Your task to perform on an android device: Look up the best rated 3d printer on Ali Express Image 0: 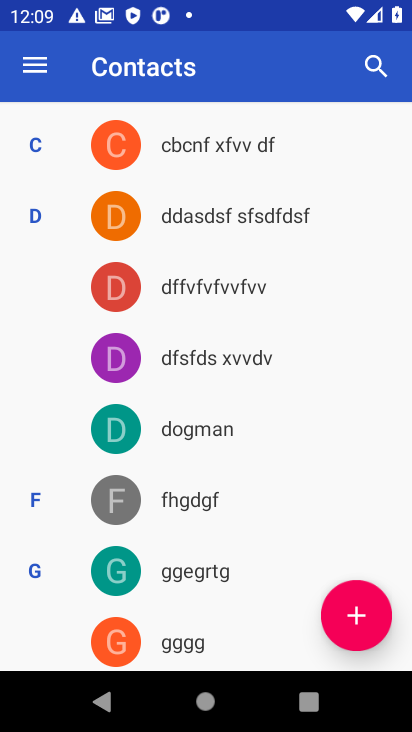
Step 0: press home button
Your task to perform on an android device: Look up the best rated 3d printer on Ali Express Image 1: 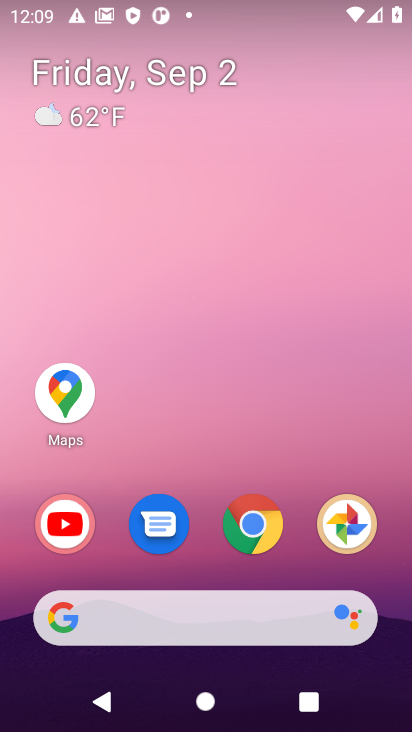
Step 1: click (261, 529)
Your task to perform on an android device: Look up the best rated 3d printer on Ali Express Image 2: 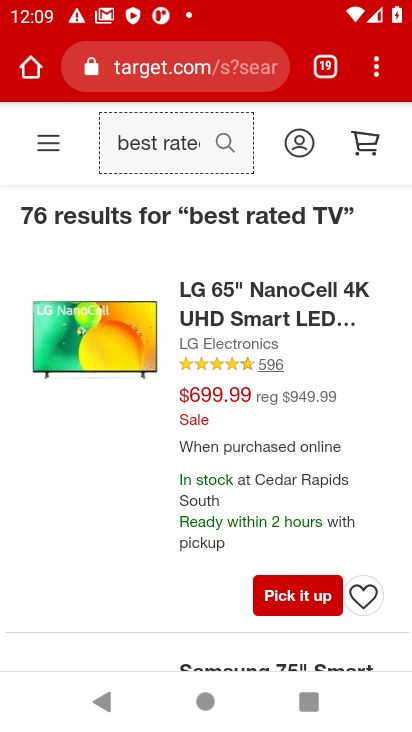
Step 2: click (327, 66)
Your task to perform on an android device: Look up the best rated 3d printer on Ali Express Image 3: 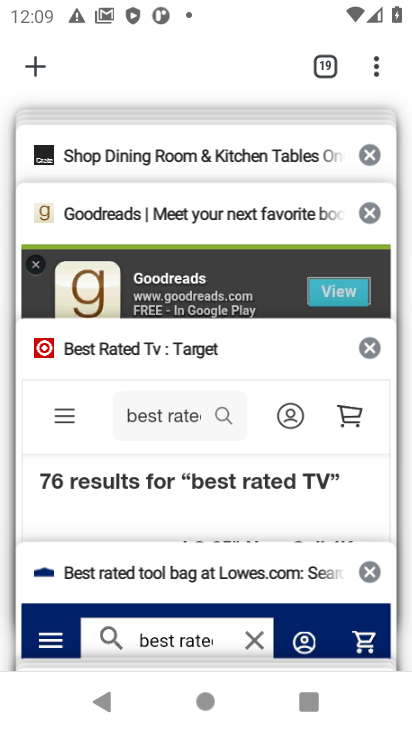
Step 3: drag from (137, 576) to (114, 143)
Your task to perform on an android device: Look up the best rated 3d printer on Ali Express Image 4: 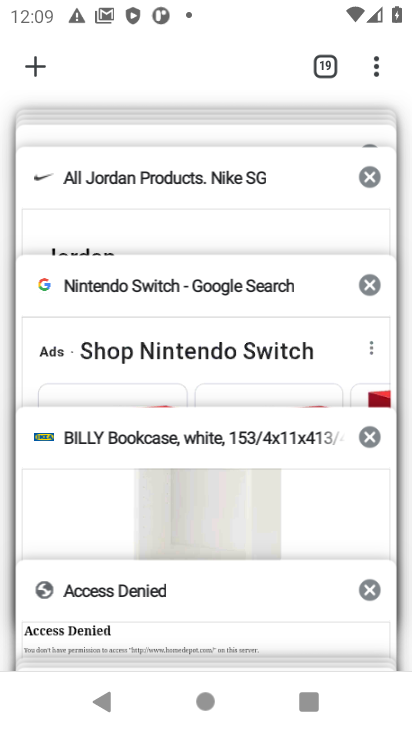
Step 4: drag from (135, 545) to (144, 172)
Your task to perform on an android device: Look up the best rated 3d printer on Ali Express Image 5: 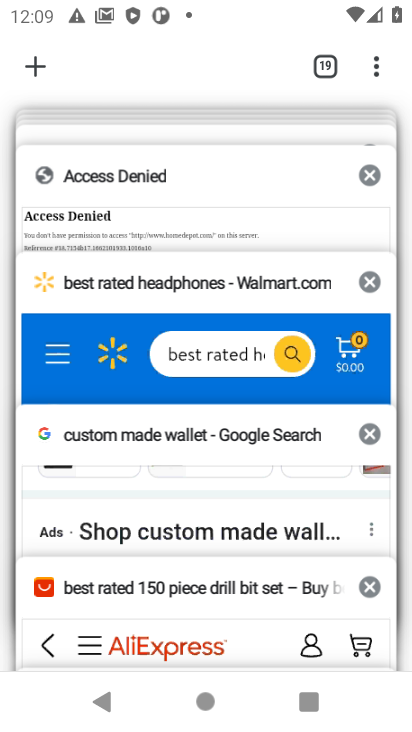
Step 5: drag from (171, 606) to (165, 254)
Your task to perform on an android device: Look up the best rated 3d printer on Ali Express Image 6: 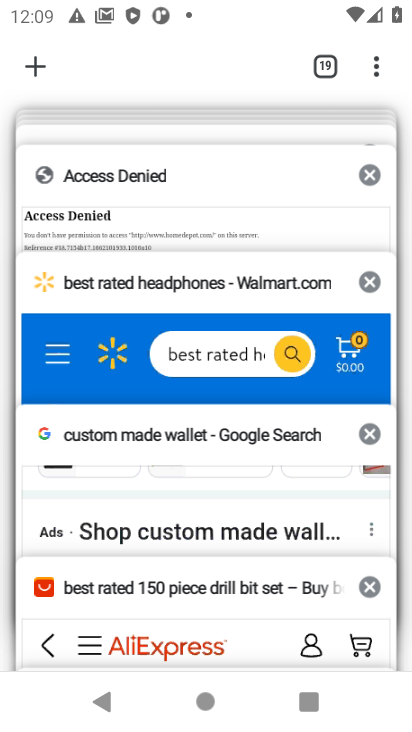
Step 6: drag from (130, 582) to (125, 290)
Your task to perform on an android device: Look up the best rated 3d printer on Ali Express Image 7: 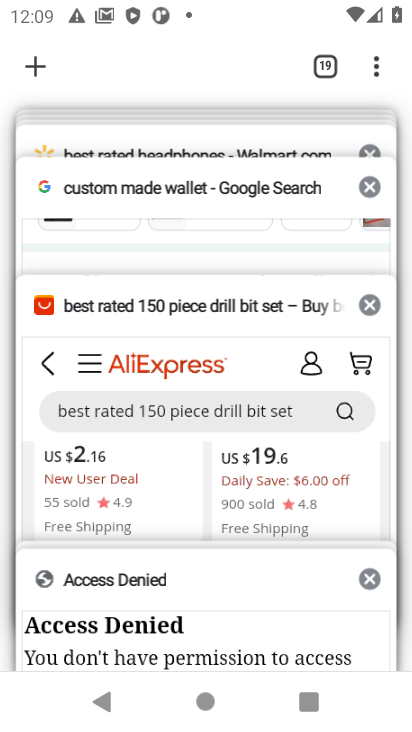
Step 7: click (154, 364)
Your task to perform on an android device: Look up the best rated 3d printer on Ali Express Image 8: 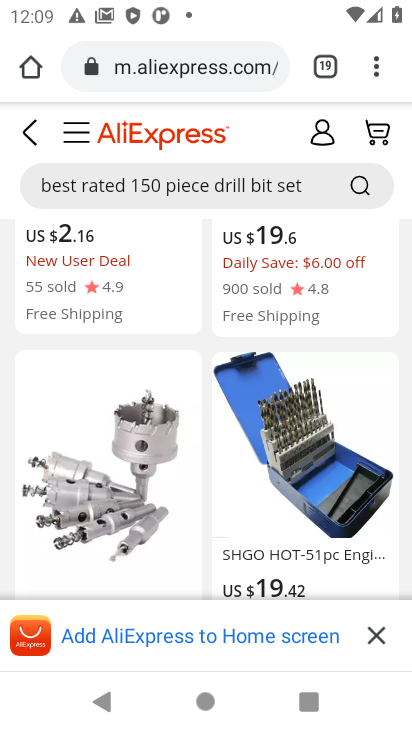
Step 8: click (272, 187)
Your task to perform on an android device: Look up the best rated 3d printer on Ali Express Image 9: 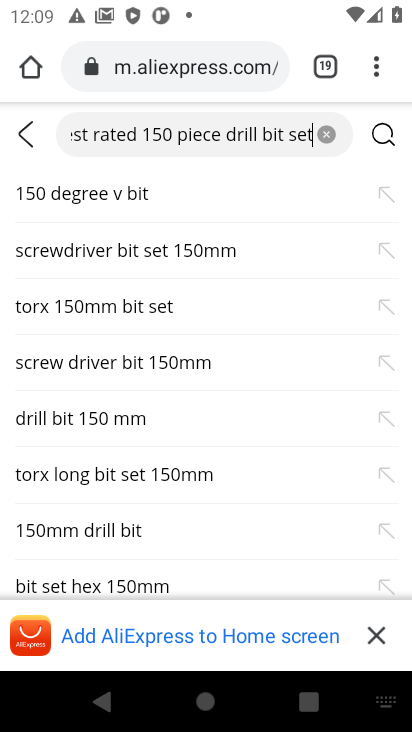
Step 9: click (326, 128)
Your task to perform on an android device: Look up the best rated 3d printer on Ali Express Image 10: 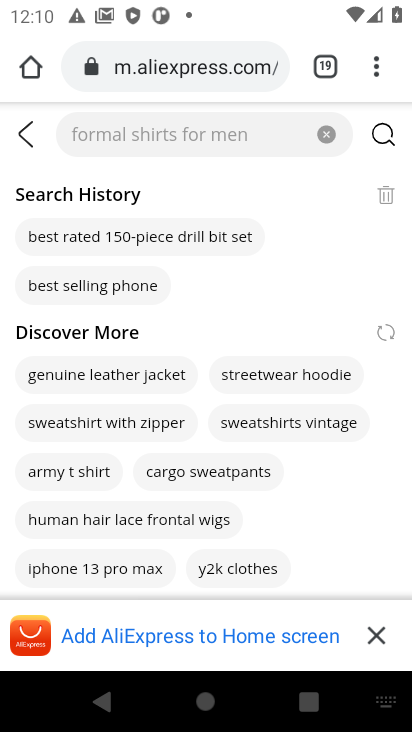
Step 10: click (179, 126)
Your task to perform on an android device: Look up the best rated 3d printer on Ali Express Image 11: 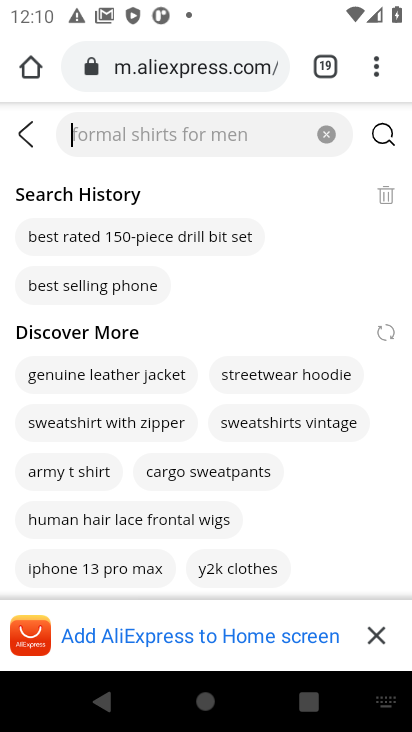
Step 11: type "best rated 3d printer"
Your task to perform on an android device: Look up the best rated 3d printer on Ali Express Image 12: 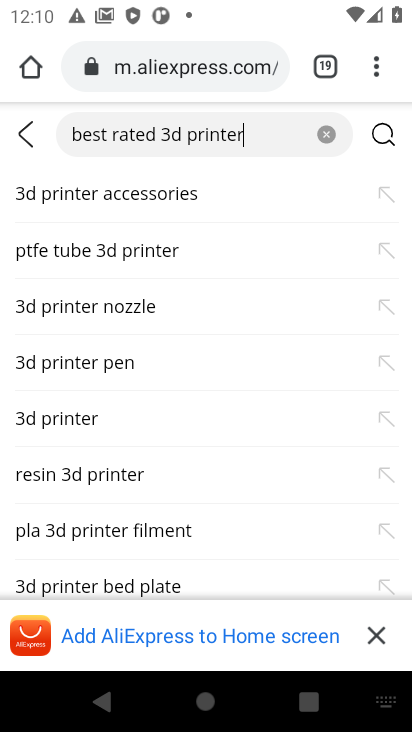
Step 12: click (382, 138)
Your task to perform on an android device: Look up the best rated 3d printer on Ali Express Image 13: 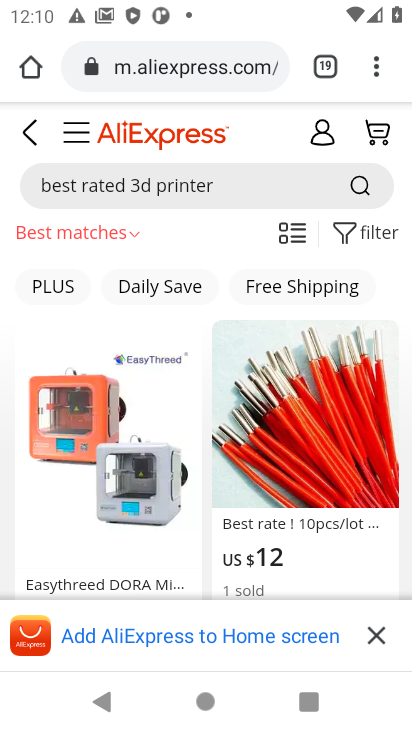
Step 13: drag from (169, 551) to (140, 202)
Your task to perform on an android device: Look up the best rated 3d printer on Ali Express Image 14: 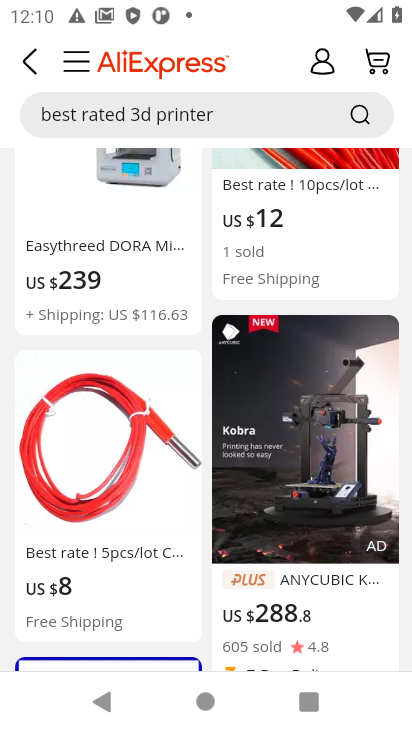
Step 14: drag from (318, 540) to (253, 199)
Your task to perform on an android device: Look up the best rated 3d printer on Ali Express Image 15: 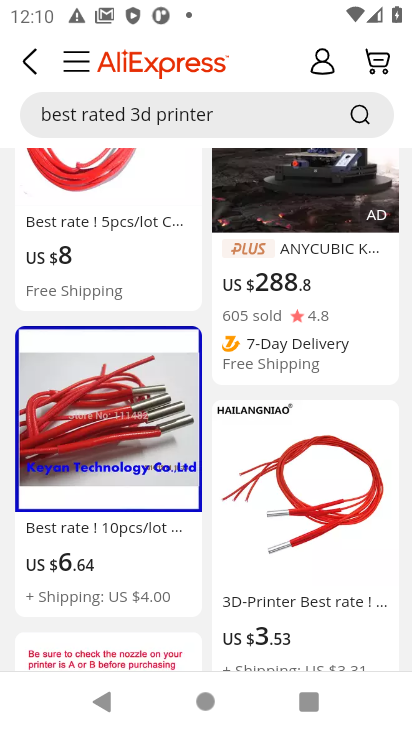
Step 15: click (269, 640)
Your task to perform on an android device: Look up the best rated 3d printer on Ali Express Image 16: 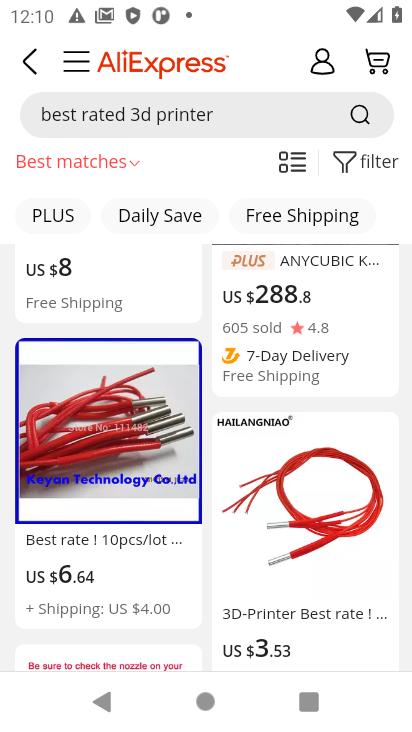
Step 16: task complete